Your task to perform on an android device: change the clock style Image 0: 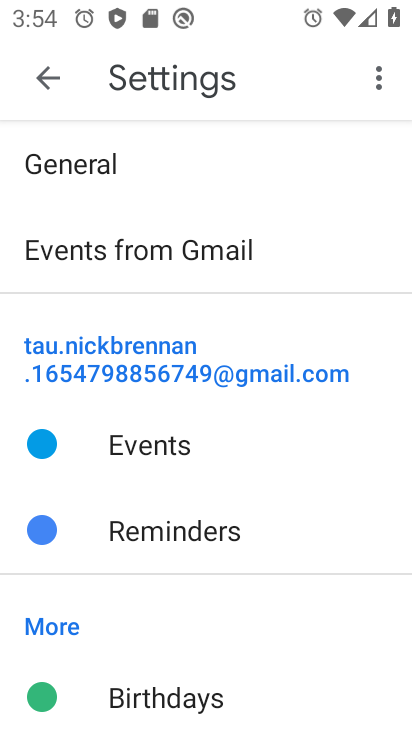
Step 0: press home button
Your task to perform on an android device: change the clock style Image 1: 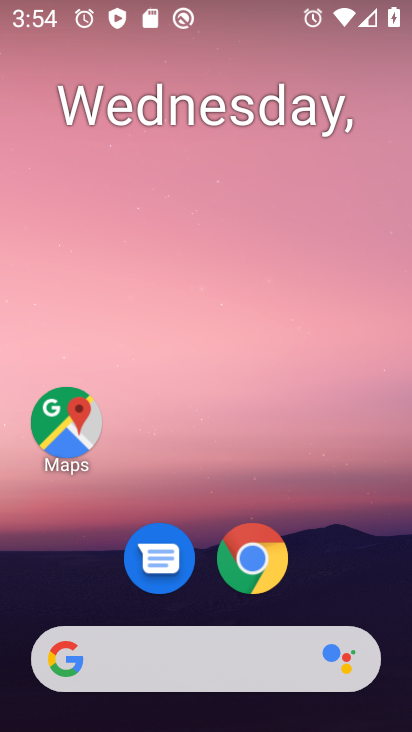
Step 1: drag from (228, 621) to (174, 265)
Your task to perform on an android device: change the clock style Image 2: 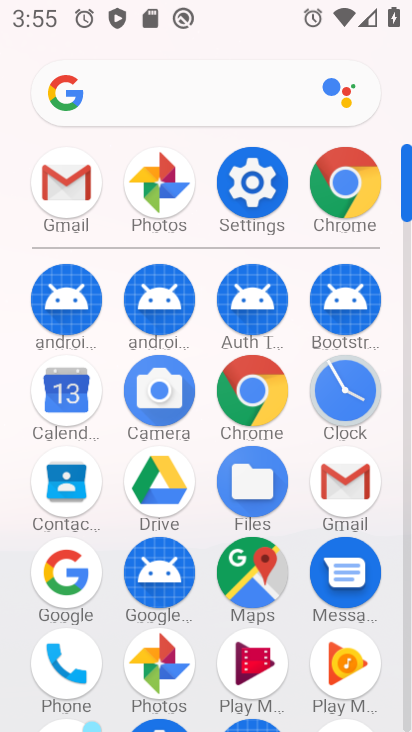
Step 2: click (340, 401)
Your task to perform on an android device: change the clock style Image 3: 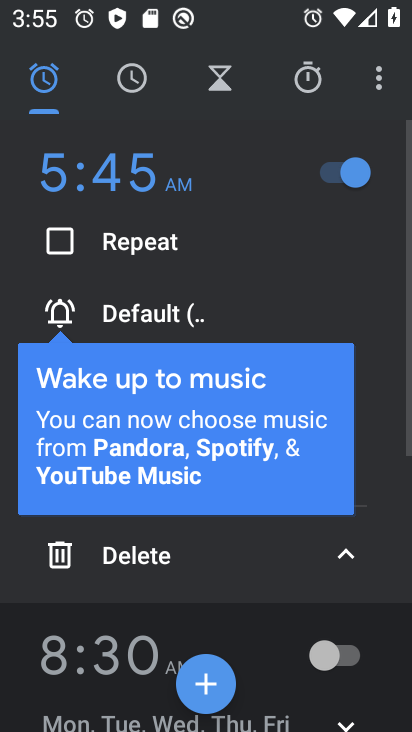
Step 3: click (373, 89)
Your task to perform on an android device: change the clock style Image 4: 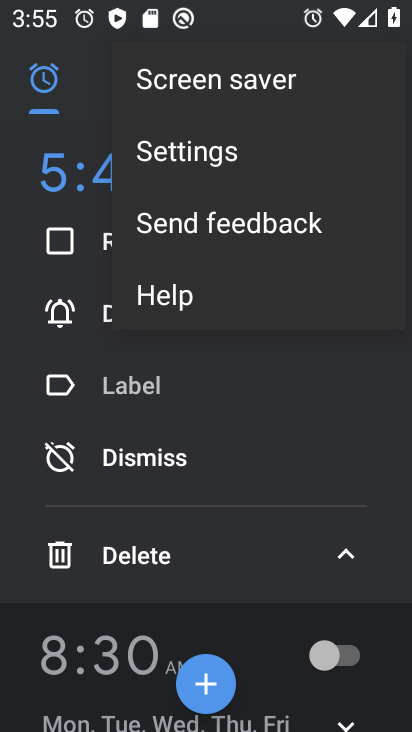
Step 4: click (219, 148)
Your task to perform on an android device: change the clock style Image 5: 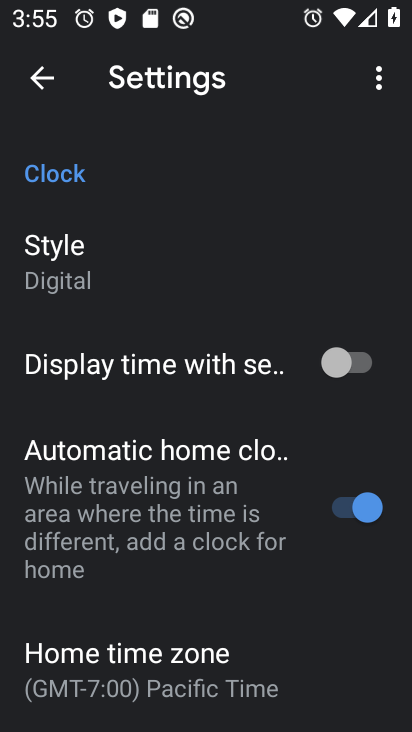
Step 5: click (39, 274)
Your task to perform on an android device: change the clock style Image 6: 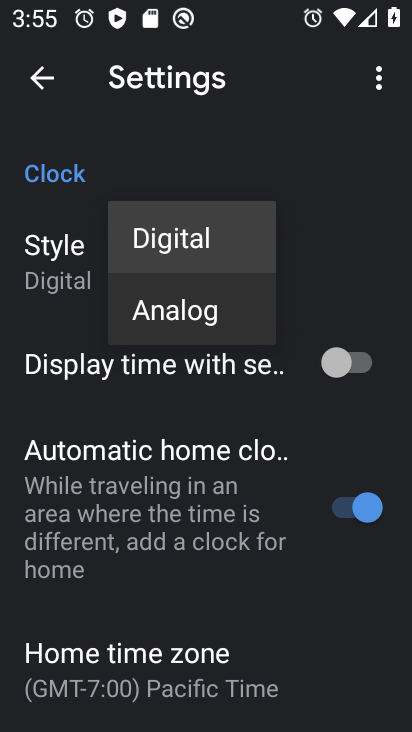
Step 6: click (164, 311)
Your task to perform on an android device: change the clock style Image 7: 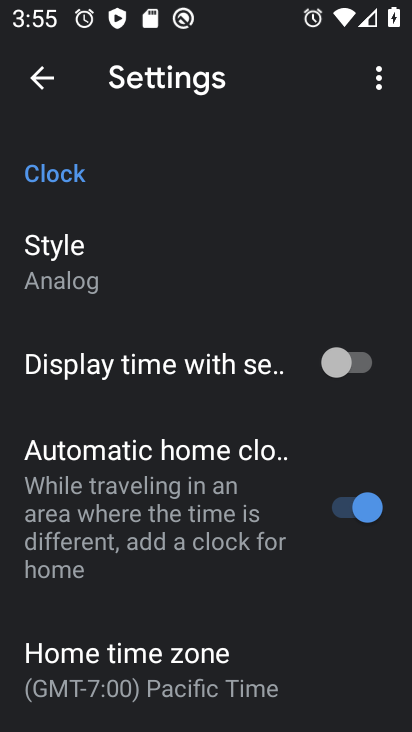
Step 7: task complete